Your task to perform on an android device: Open privacy settings Image 0: 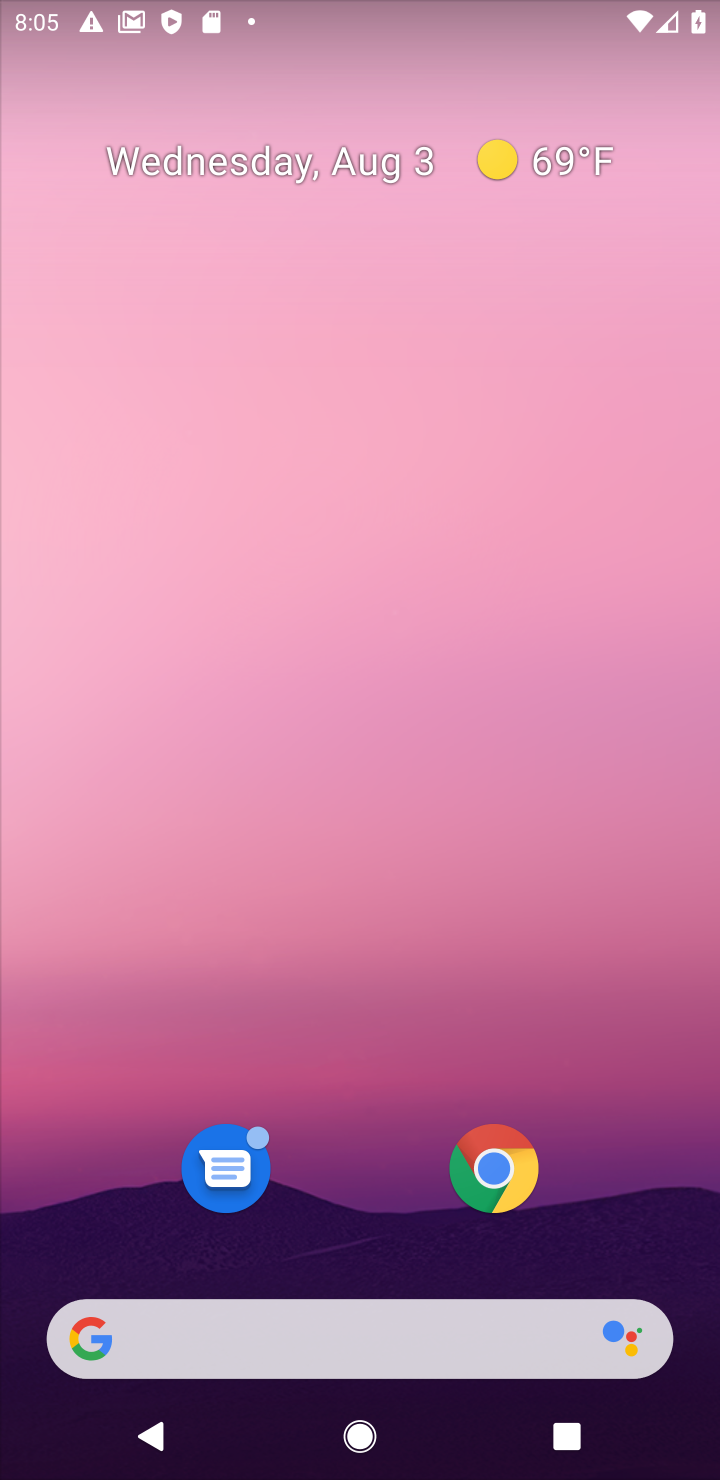
Step 0: drag from (463, 1250) to (697, 774)
Your task to perform on an android device: Open privacy settings Image 1: 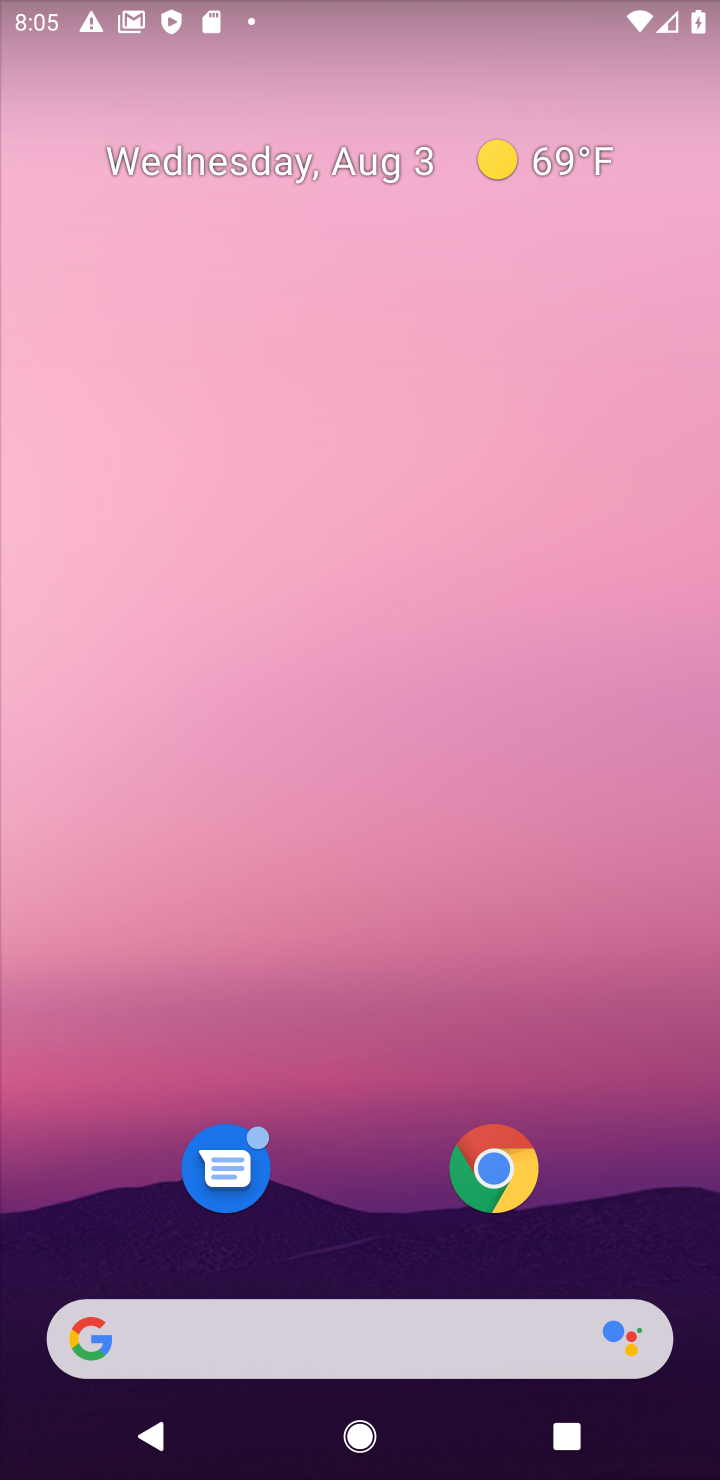
Step 1: drag from (408, 1244) to (293, 38)
Your task to perform on an android device: Open privacy settings Image 2: 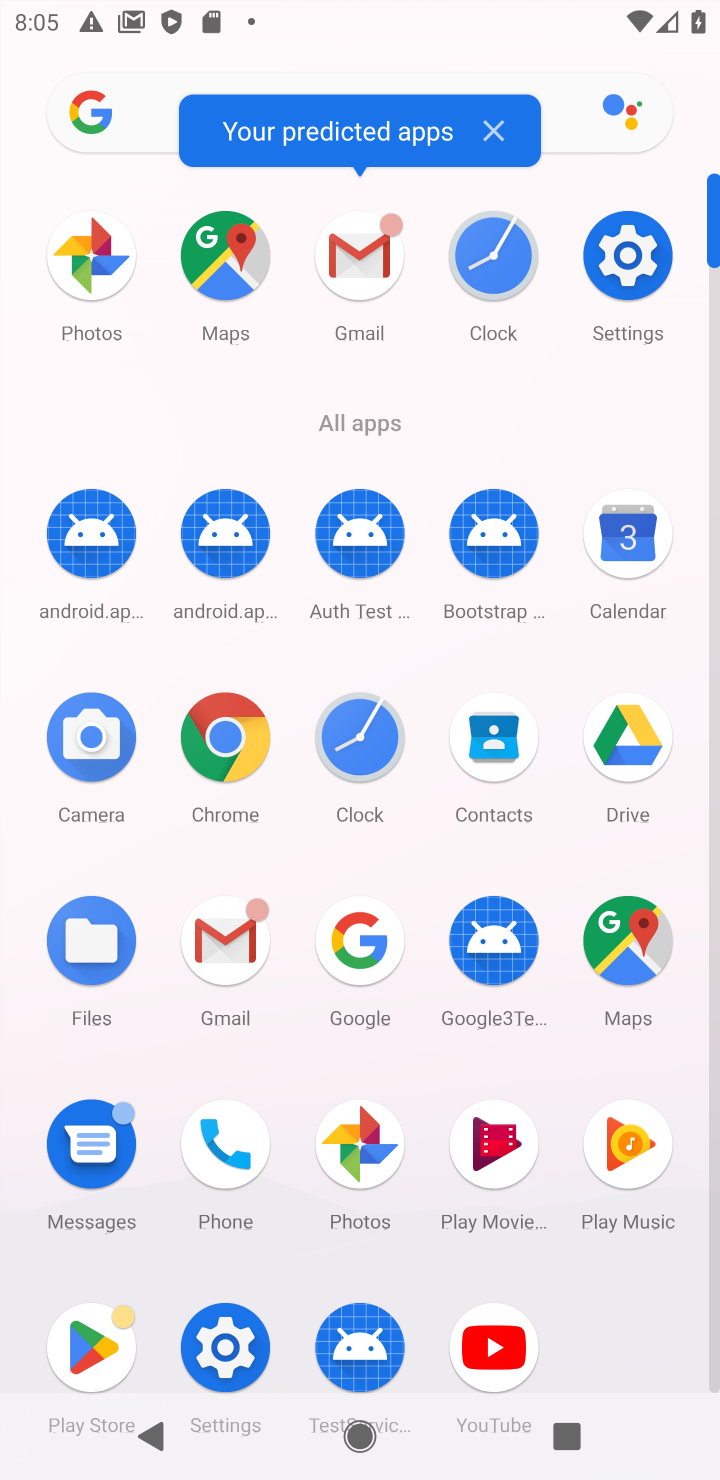
Step 2: click (241, 1325)
Your task to perform on an android device: Open privacy settings Image 3: 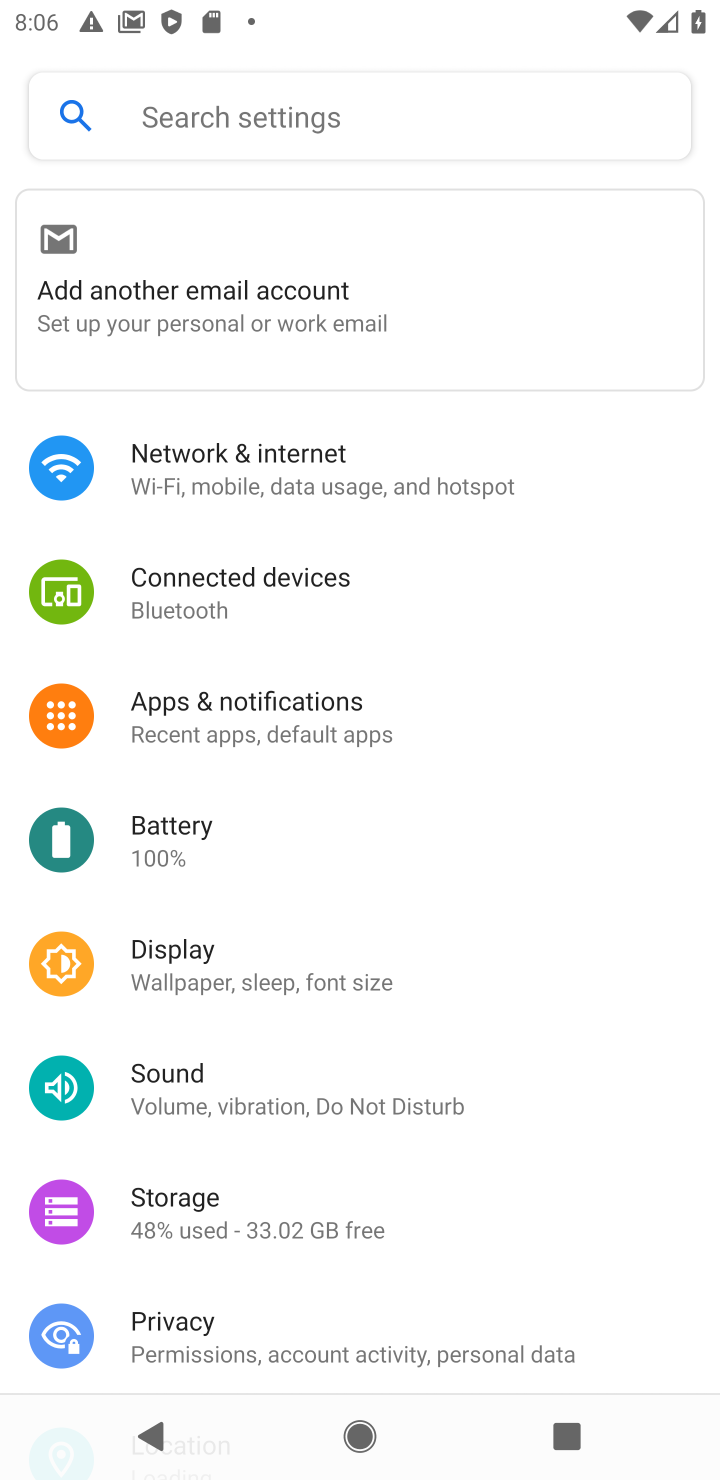
Step 3: click (166, 1325)
Your task to perform on an android device: Open privacy settings Image 4: 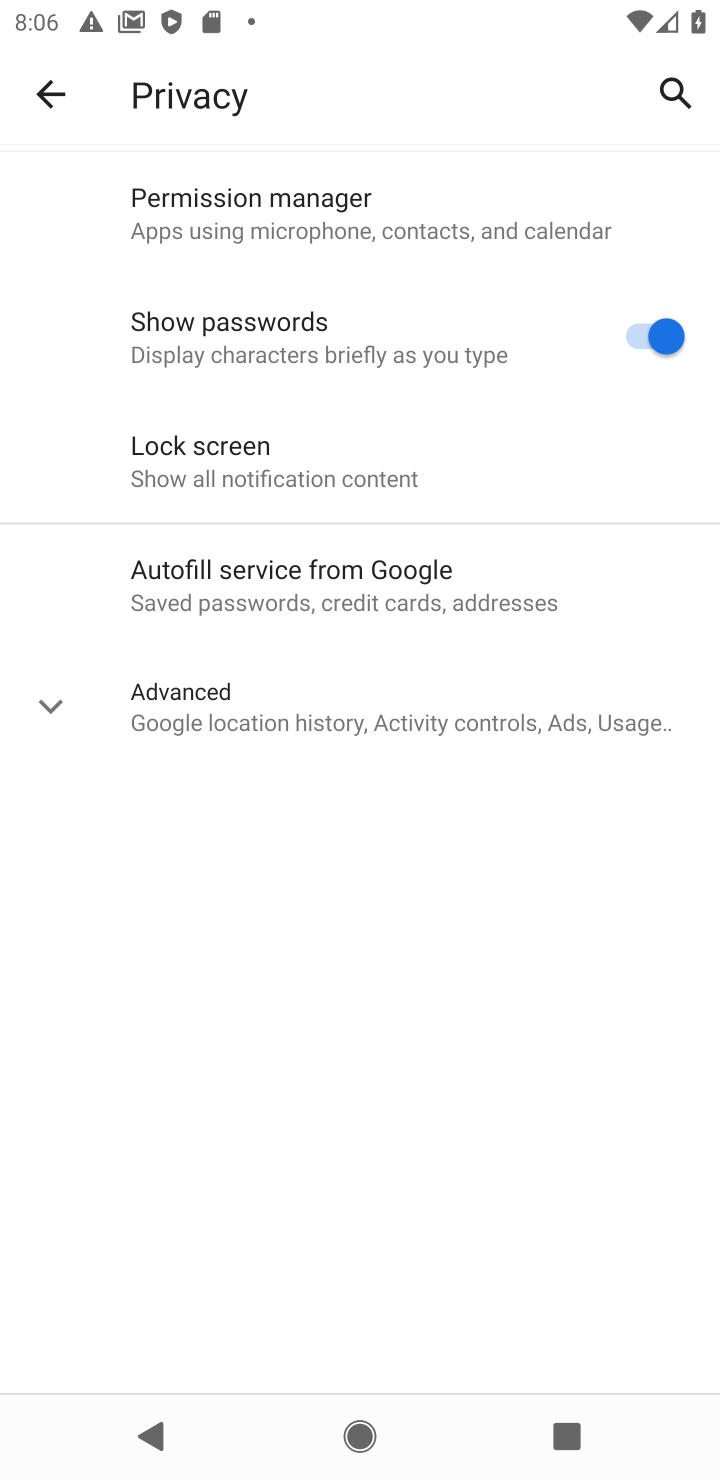
Step 4: task complete